Your task to perform on an android device: toggle notifications settings in the gmail app Image 0: 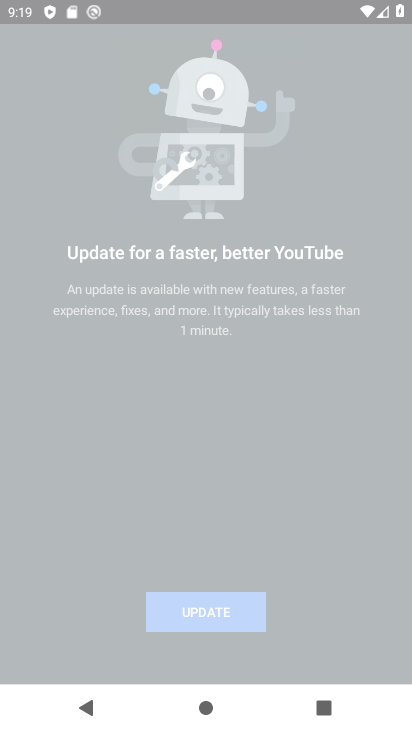
Step 0: drag from (208, 602) to (85, 151)
Your task to perform on an android device: toggle notifications settings in the gmail app Image 1: 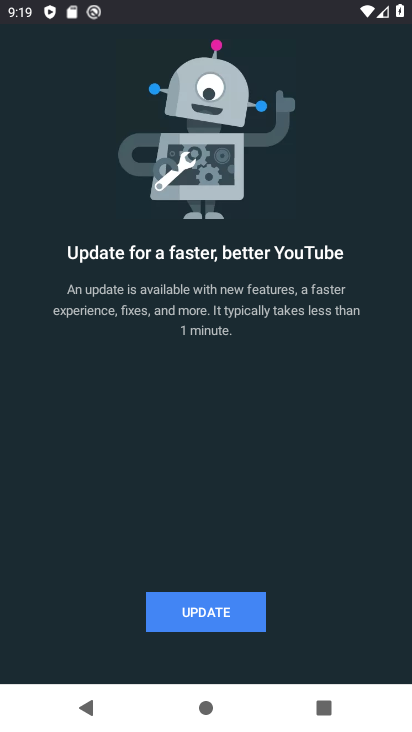
Step 1: press home button
Your task to perform on an android device: toggle notifications settings in the gmail app Image 2: 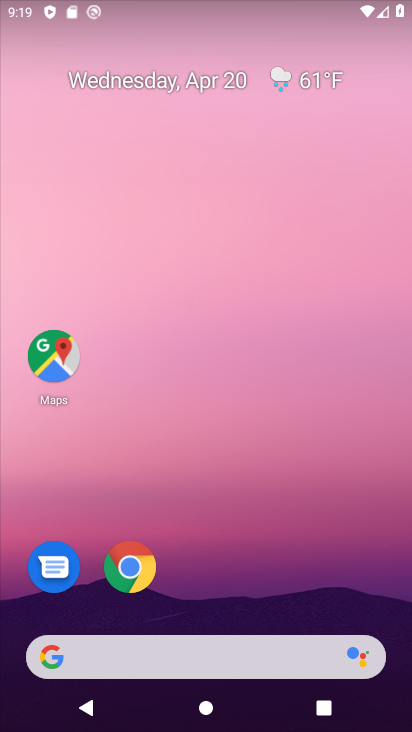
Step 2: drag from (189, 546) to (186, 255)
Your task to perform on an android device: toggle notifications settings in the gmail app Image 3: 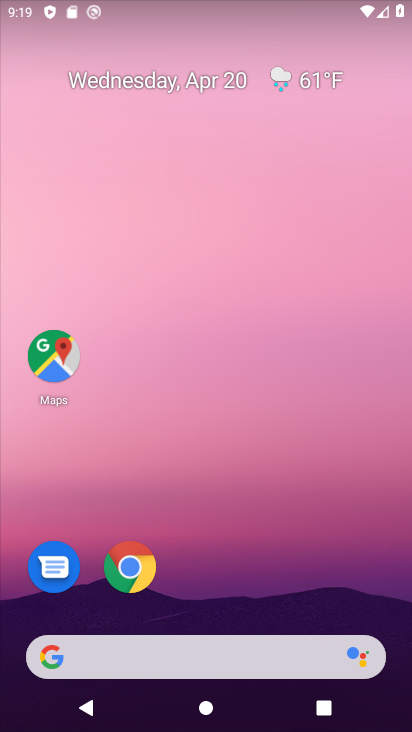
Step 3: drag from (218, 589) to (218, 141)
Your task to perform on an android device: toggle notifications settings in the gmail app Image 4: 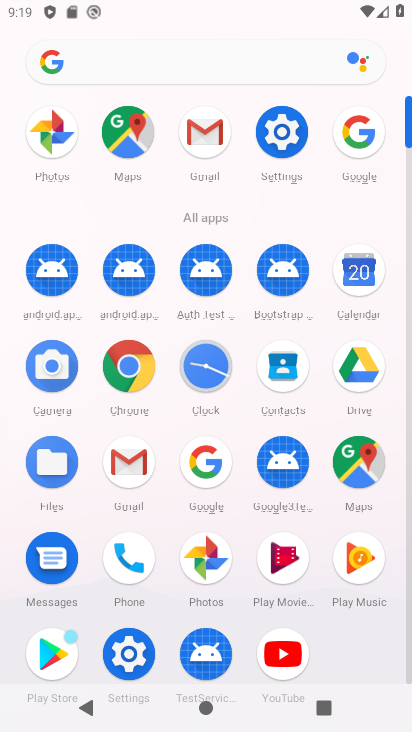
Step 4: click (204, 144)
Your task to perform on an android device: toggle notifications settings in the gmail app Image 5: 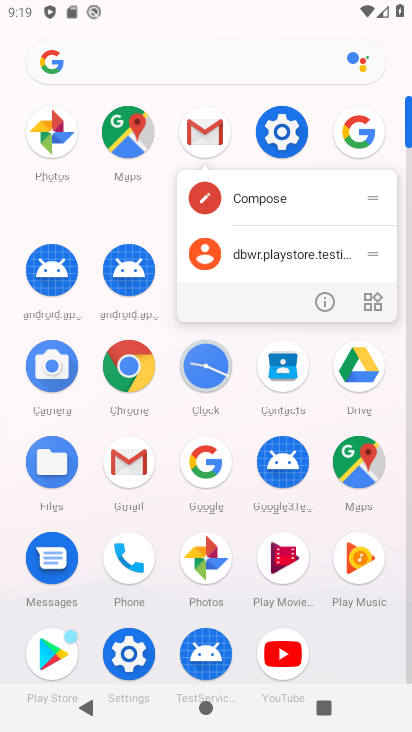
Step 5: click (204, 144)
Your task to perform on an android device: toggle notifications settings in the gmail app Image 6: 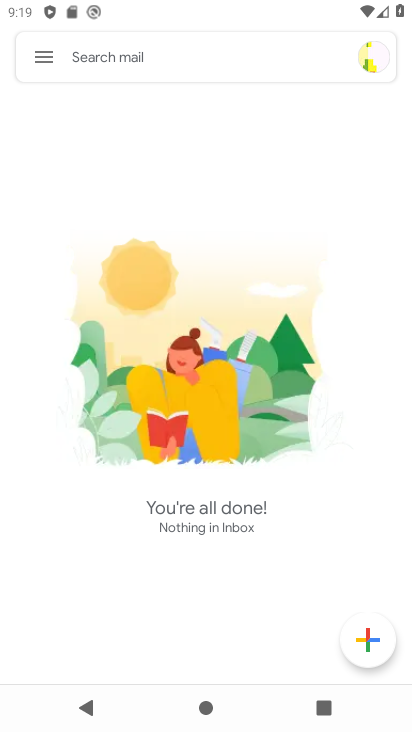
Step 6: click (44, 53)
Your task to perform on an android device: toggle notifications settings in the gmail app Image 7: 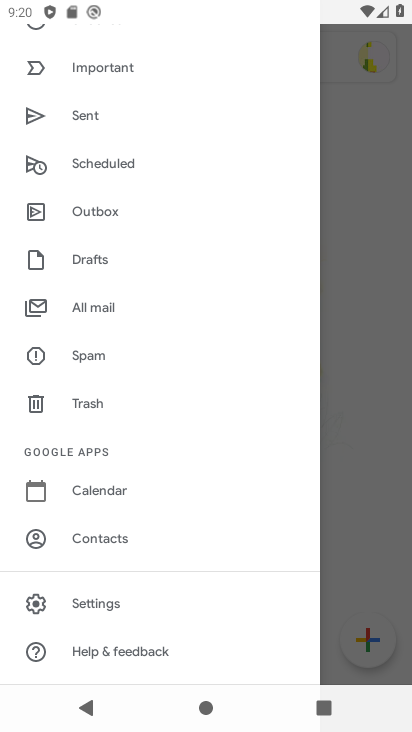
Step 7: click (87, 594)
Your task to perform on an android device: toggle notifications settings in the gmail app Image 8: 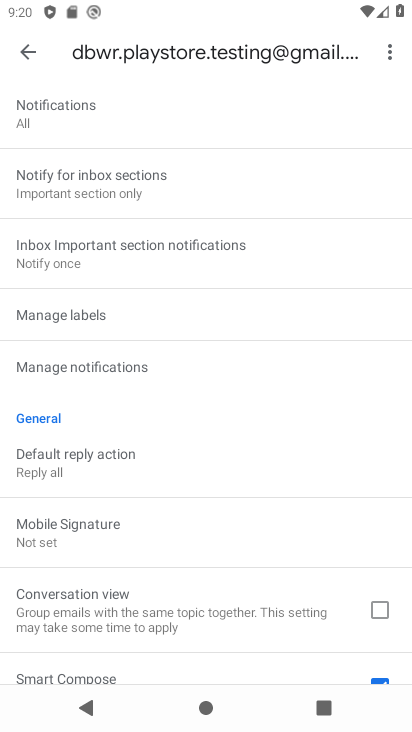
Step 8: click (163, 370)
Your task to perform on an android device: toggle notifications settings in the gmail app Image 9: 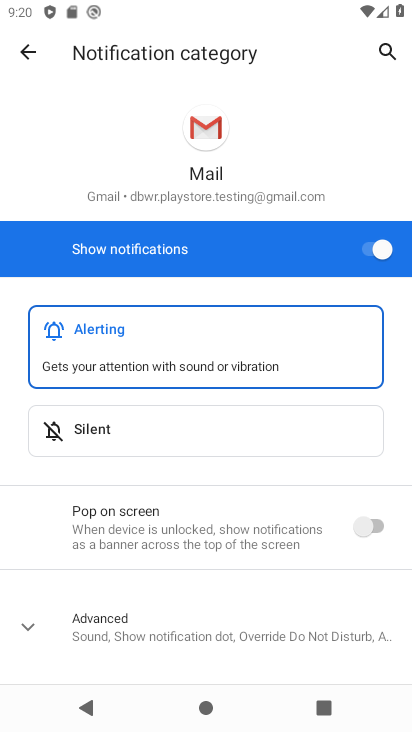
Step 9: click (369, 256)
Your task to perform on an android device: toggle notifications settings in the gmail app Image 10: 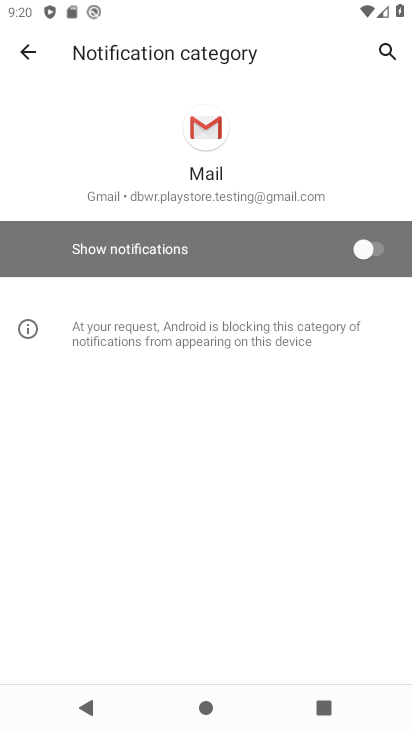
Step 10: task complete